Your task to perform on an android device: change your default location settings in chrome Image 0: 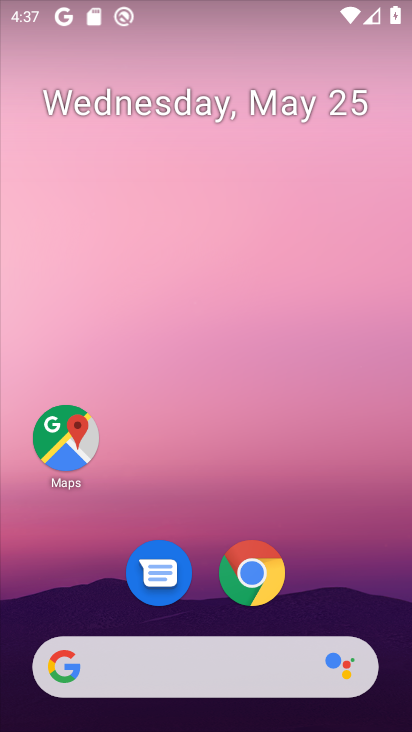
Step 0: drag from (213, 725) to (207, 77)
Your task to perform on an android device: change your default location settings in chrome Image 1: 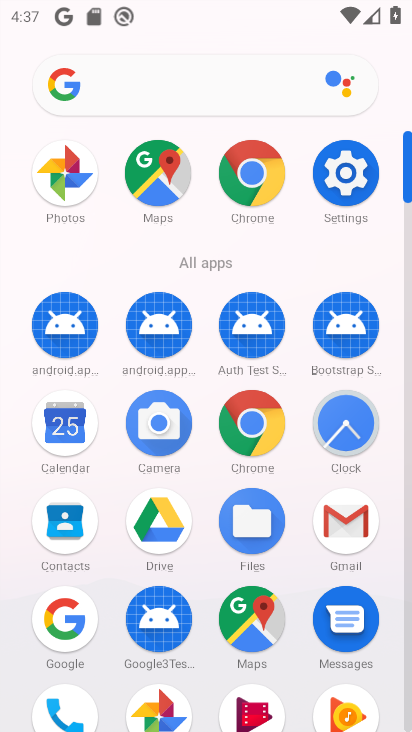
Step 1: click (258, 425)
Your task to perform on an android device: change your default location settings in chrome Image 2: 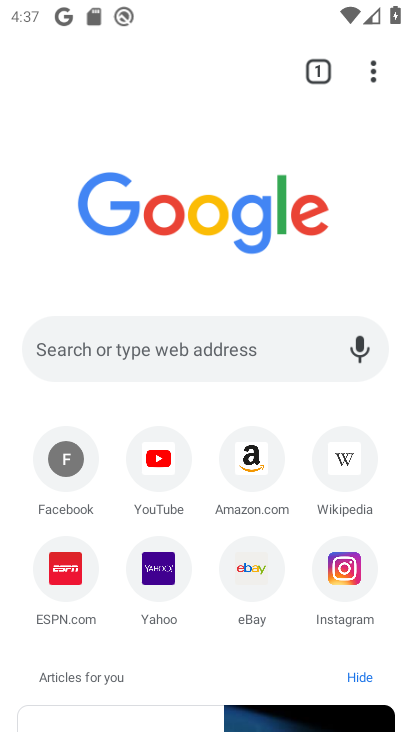
Step 2: click (374, 80)
Your task to perform on an android device: change your default location settings in chrome Image 3: 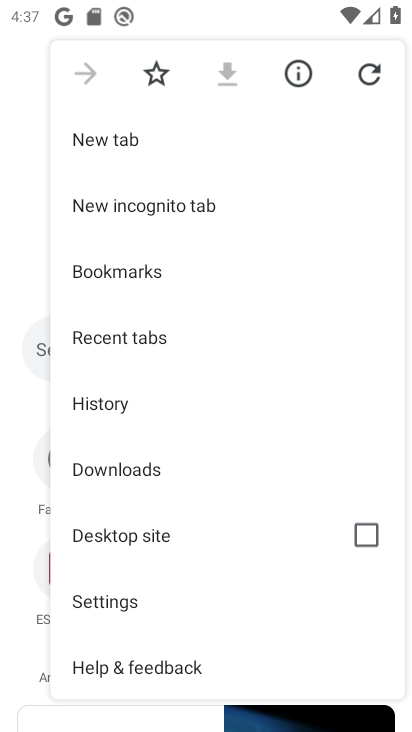
Step 3: drag from (109, 539) to (108, 244)
Your task to perform on an android device: change your default location settings in chrome Image 4: 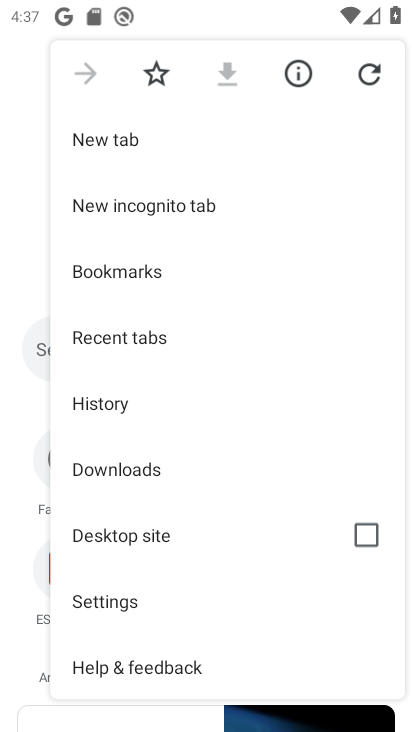
Step 4: click (111, 593)
Your task to perform on an android device: change your default location settings in chrome Image 5: 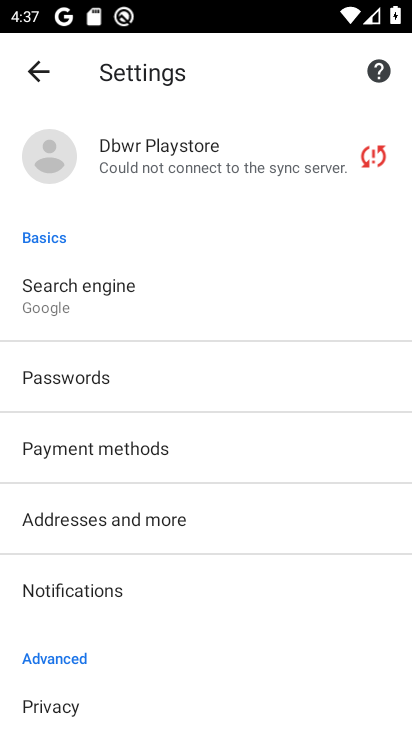
Step 5: drag from (82, 640) to (107, 288)
Your task to perform on an android device: change your default location settings in chrome Image 6: 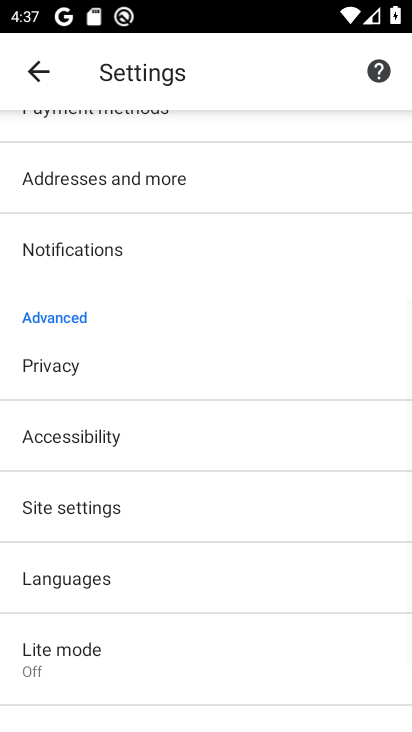
Step 6: drag from (87, 627) to (88, 252)
Your task to perform on an android device: change your default location settings in chrome Image 7: 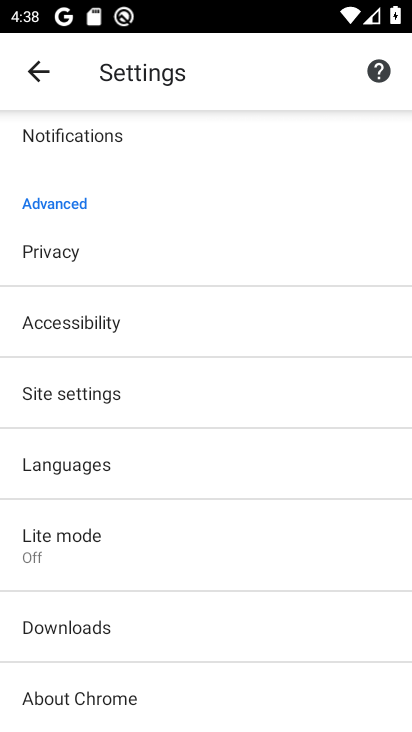
Step 7: click (85, 392)
Your task to perform on an android device: change your default location settings in chrome Image 8: 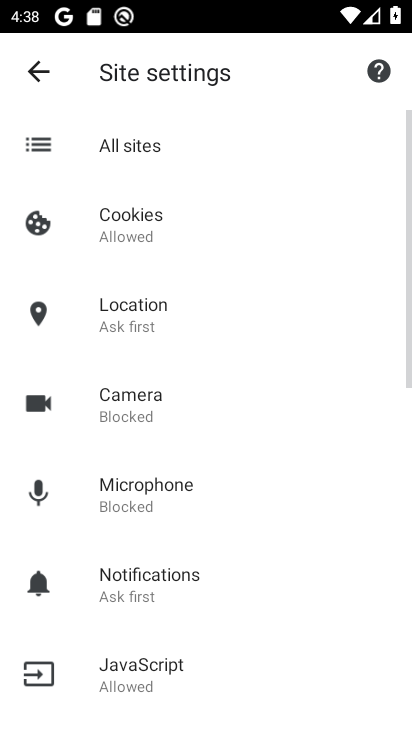
Step 8: click (122, 317)
Your task to perform on an android device: change your default location settings in chrome Image 9: 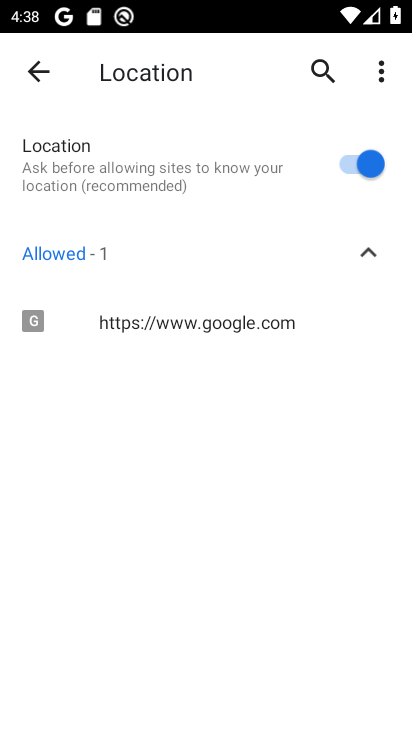
Step 9: click (350, 156)
Your task to perform on an android device: change your default location settings in chrome Image 10: 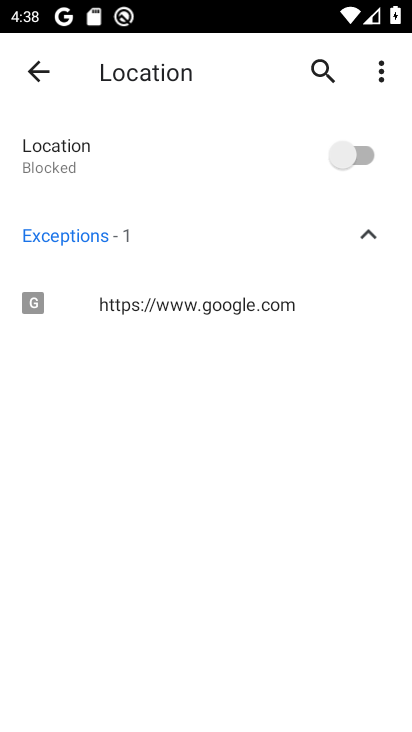
Step 10: task complete